Your task to perform on an android device: open the mobile data screen to see how much data has been used Image 0: 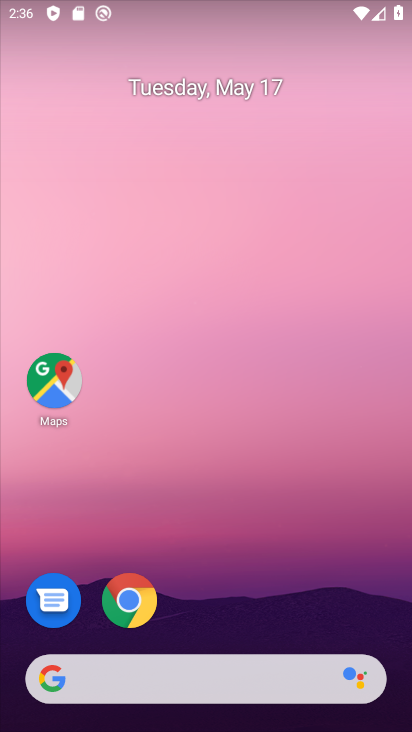
Step 0: drag from (229, 637) to (339, 110)
Your task to perform on an android device: open the mobile data screen to see how much data has been used Image 1: 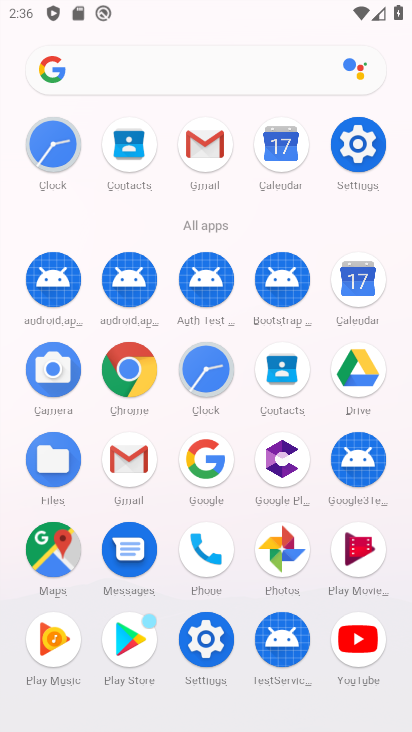
Step 1: click (203, 645)
Your task to perform on an android device: open the mobile data screen to see how much data has been used Image 2: 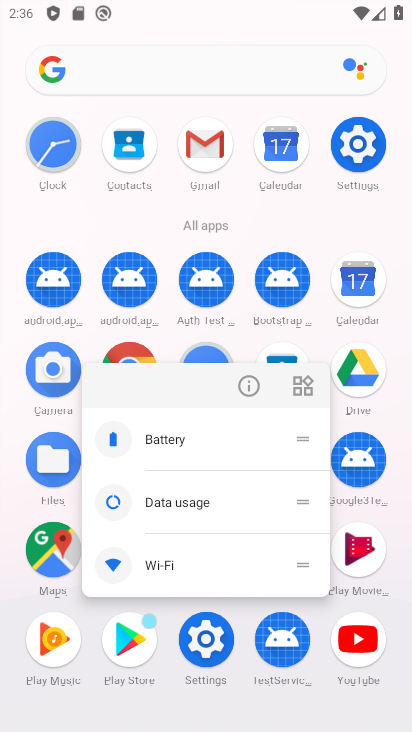
Step 2: click (218, 640)
Your task to perform on an android device: open the mobile data screen to see how much data has been used Image 3: 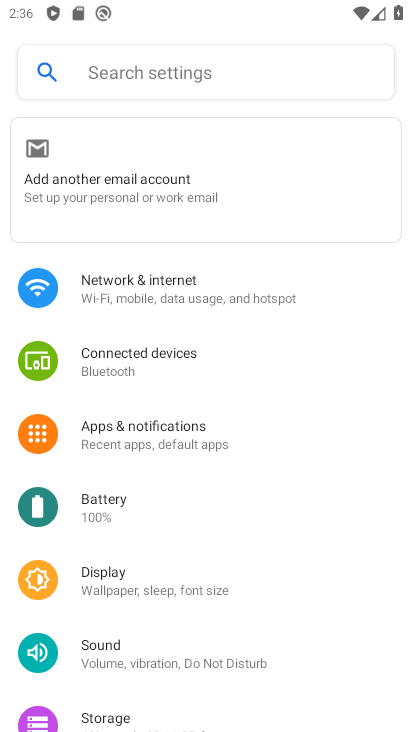
Step 3: click (296, 300)
Your task to perform on an android device: open the mobile data screen to see how much data has been used Image 4: 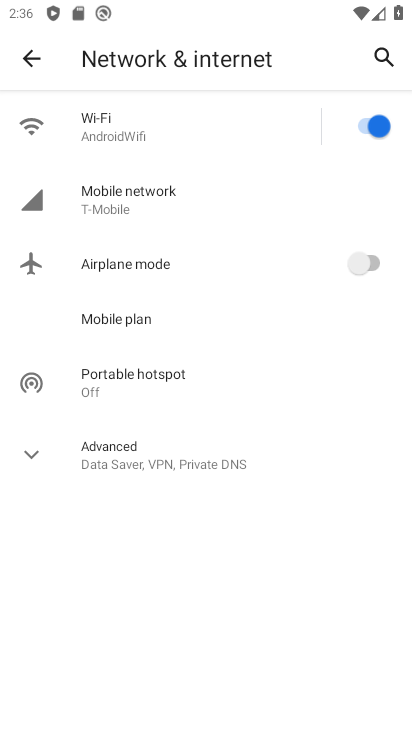
Step 4: click (228, 208)
Your task to perform on an android device: open the mobile data screen to see how much data has been used Image 5: 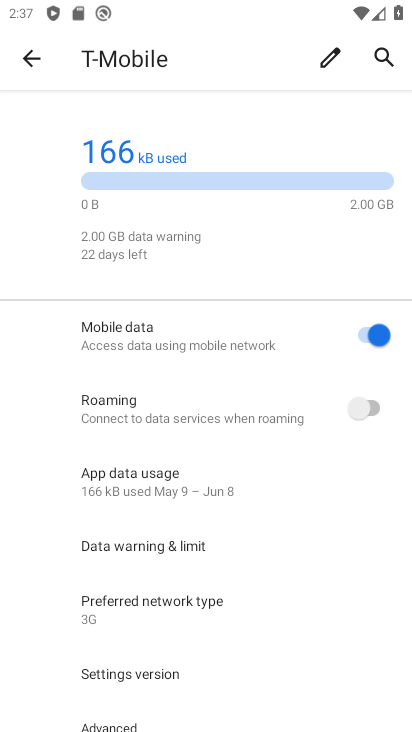
Step 5: task complete